Your task to perform on an android device: Open my contact list Image 0: 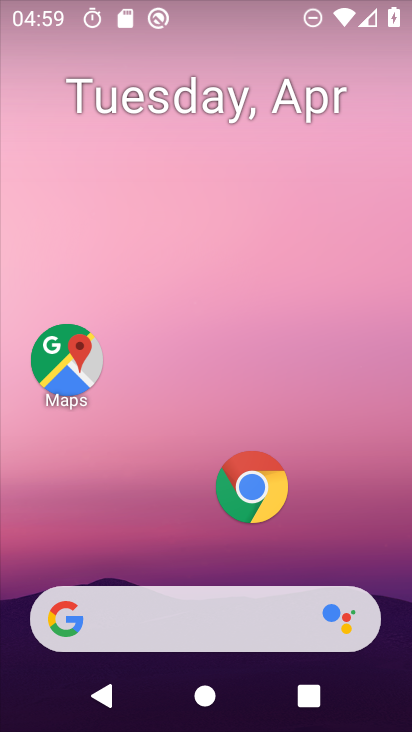
Step 0: drag from (177, 511) to (254, 78)
Your task to perform on an android device: Open my contact list Image 1: 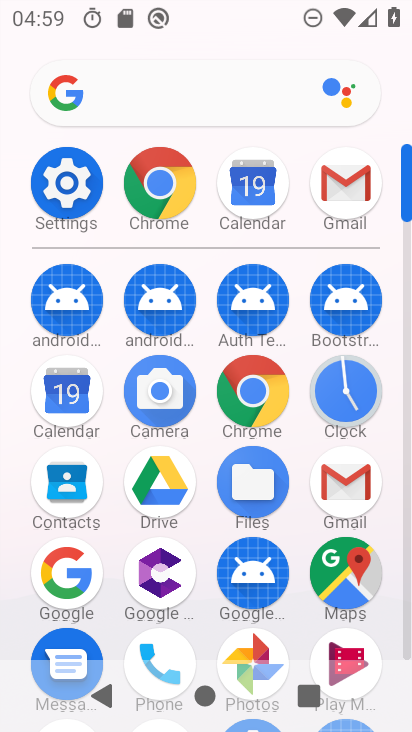
Step 1: click (70, 475)
Your task to perform on an android device: Open my contact list Image 2: 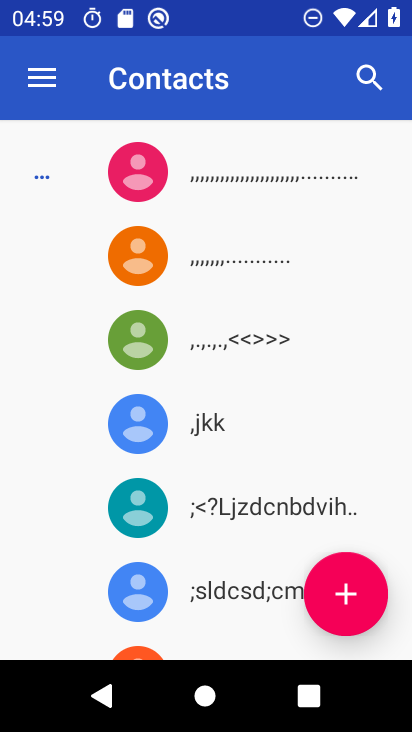
Step 2: click (352, 580)
Your task to perform on an android device: Open my contact list Image 3: 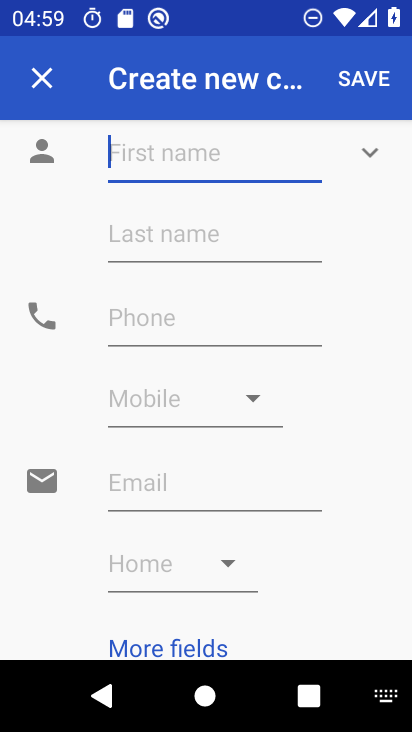
Step 3: click (196, 160)
Your task to perform on an android device: Open my contact list Image 4: 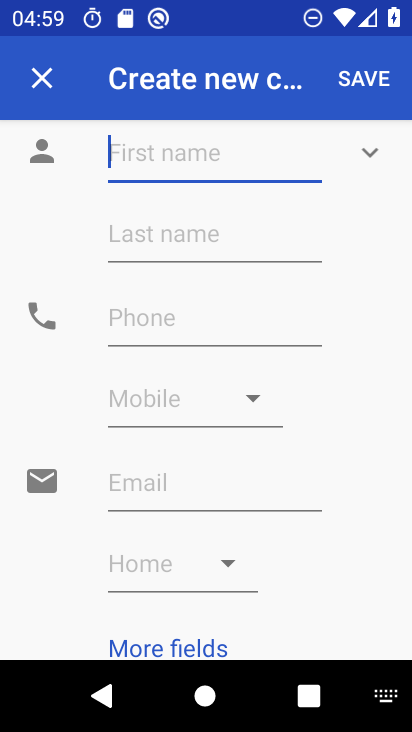
Step 4: type "vgvv"
Your task to perform on an android device: Open my contact list Image 5: 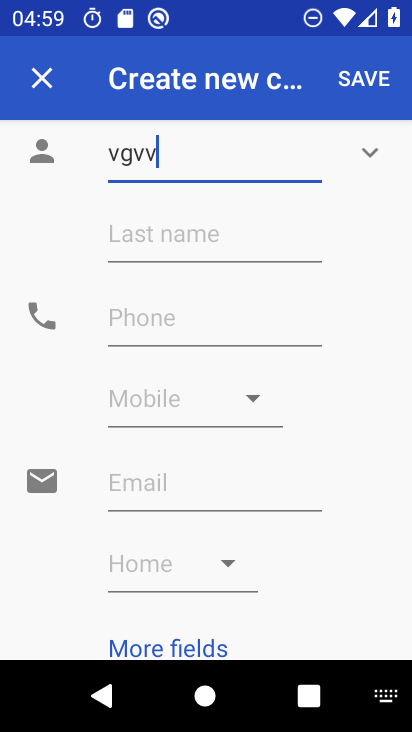
Step 5: click (195, 320)
Your task to perform on an android device: Open my contact list Image 6: 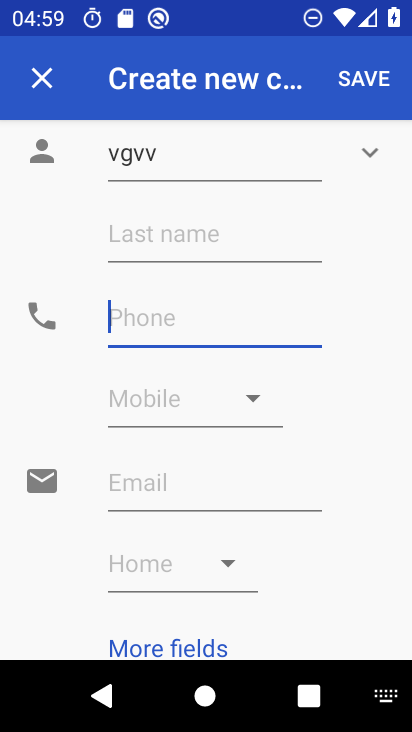
Step 6: type "76767"
Your task to perform on an android device: Open my contact list Image 7: 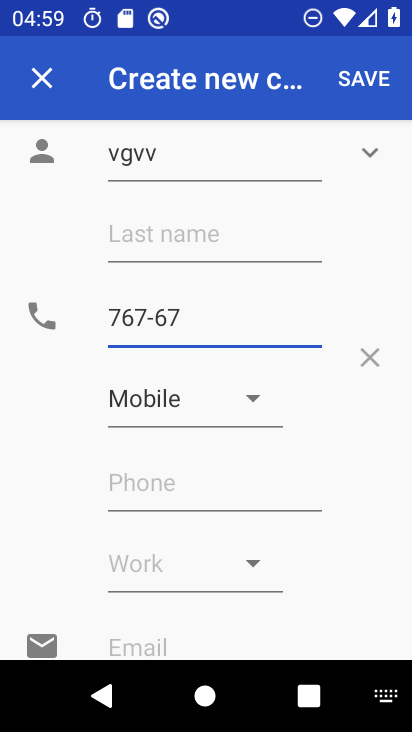
Step 7: click (358, 71)
Your task to perform on an android device: Open my contact list Image 8: 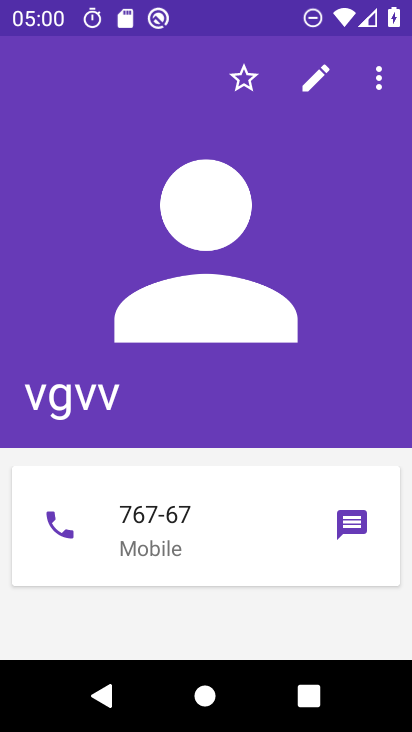
Step 8: task complete